Your task to perform on an android device: Go to location settings Image 0: 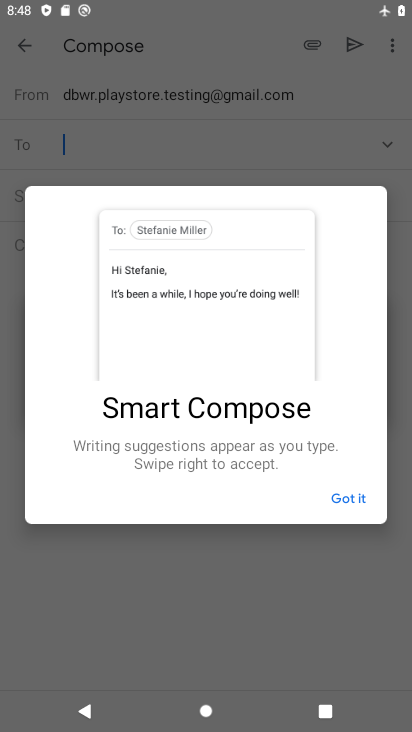
Step 0: press home button
Your task to perform on an android device: Go to location settings Image 1: 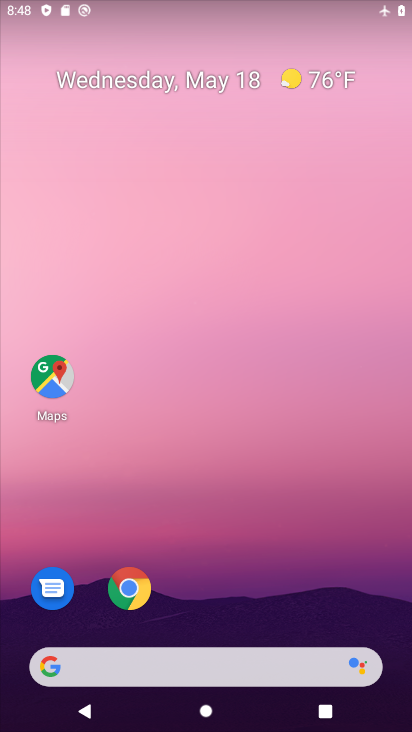
Step 1: drag from (297, 610) to (191, 105)
Your task to perform on an android device: Go to location settings Image 2: 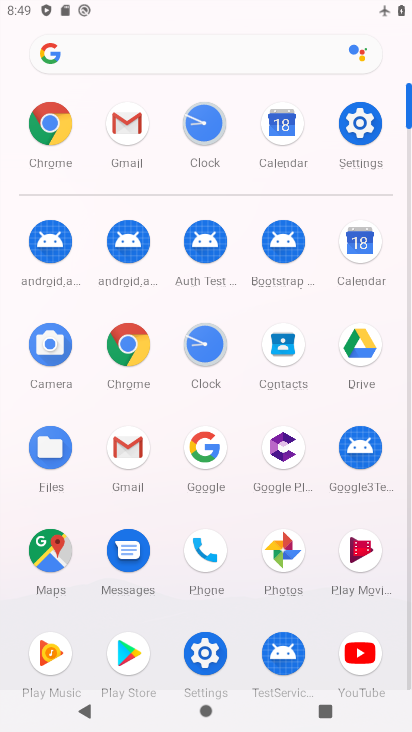
Step 2: click (356, 110)
Your task to perform on an android device: Go to location settings Image 3: 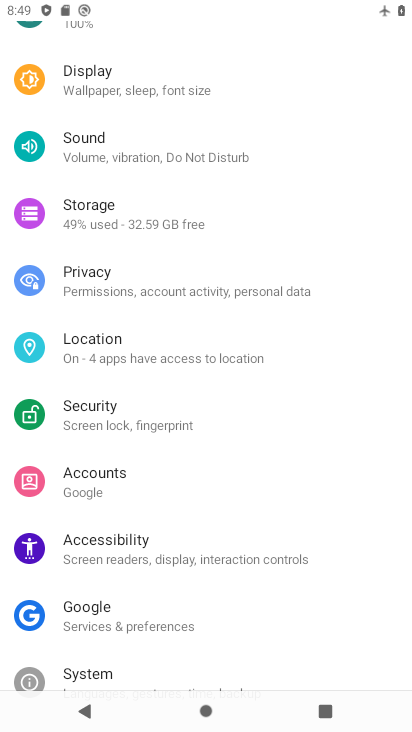
Step 3: click (244, 350)
Your task to perform on an android device: Go to location settings Image 4: 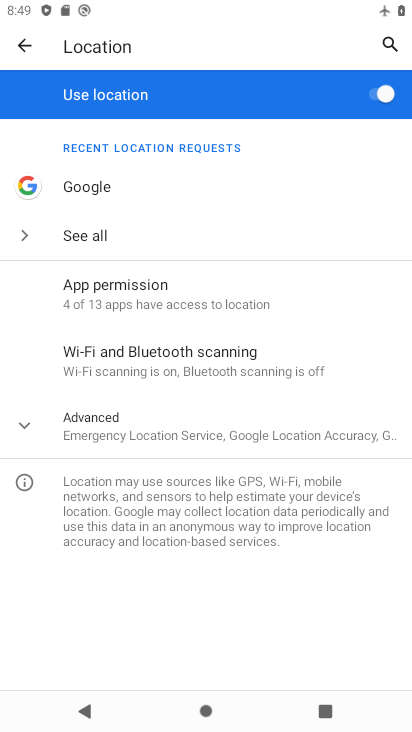
Step 4: click (195, 413)
Your task to perform on an android device: Go to location settings Image 5: 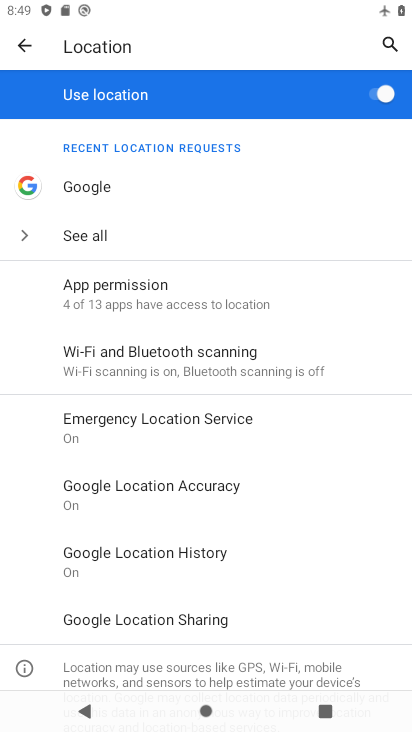
Step 5: task complete